Your task to perform on an android device: toggle airplane mode Image 0: 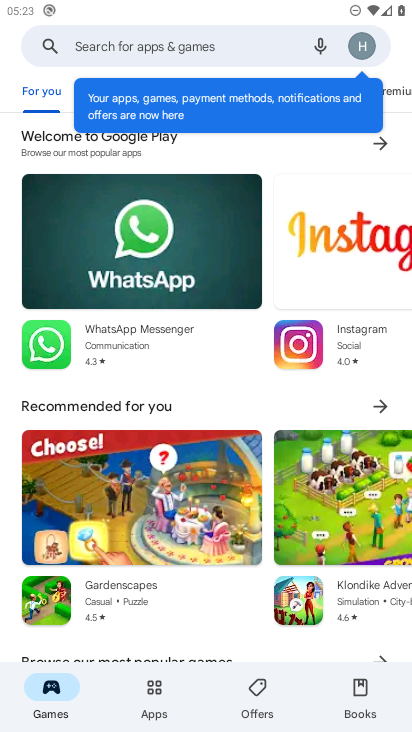
Step 0: drag from (202, 7) to (203, 477)
Your task to perform on an android device: toggle airplane mode Image 1: 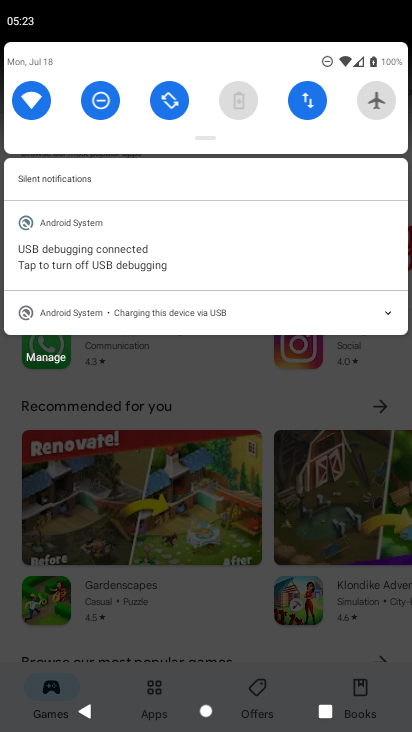
Step 1: click (375, 98)
Your task to perform on an android device: toggle airplane mode Image 2: 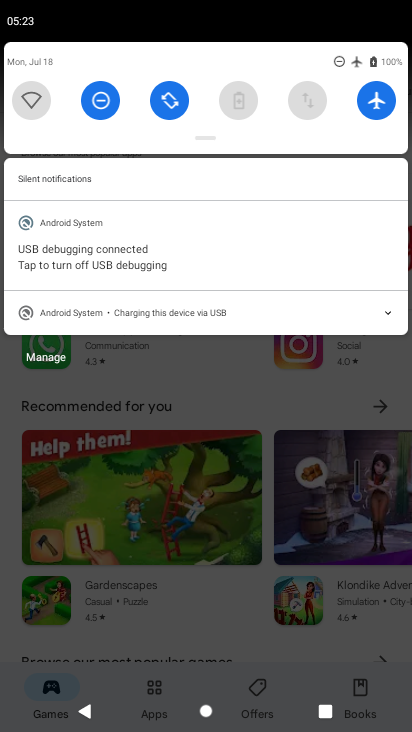
Step 2: task complete